Your task to perform on an android device: Open Google Chrome and click the shortcut for Amazon.com Image 0: 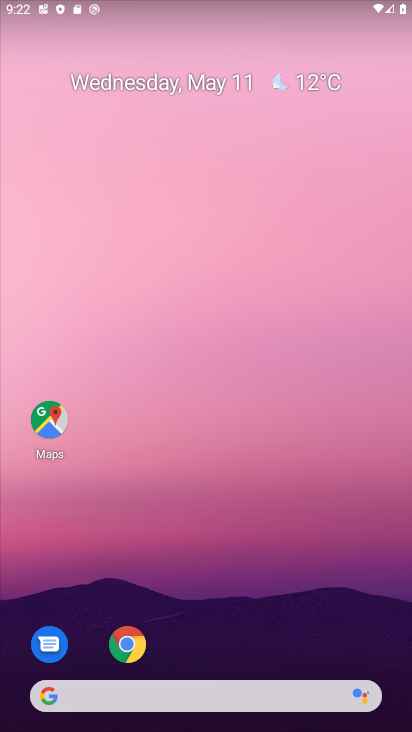
Step 0: click (136, 636)
Your task to perform on an android device: Open Google Chrome and click the shortcut for Amazon.com Image 1: 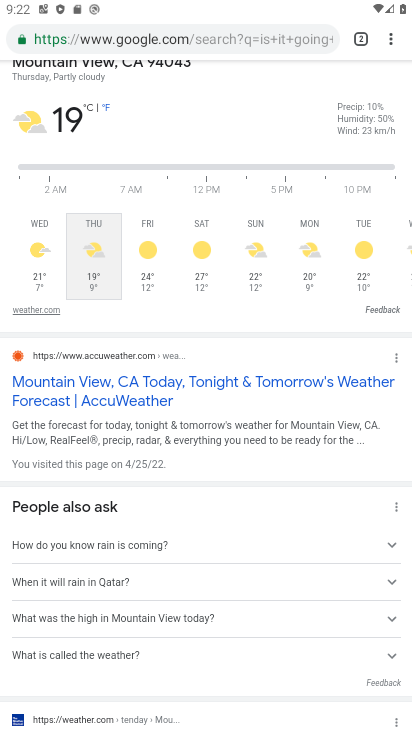
Step 1: click (363, 35)
Your task to perform on an android device: Open Google Chrome and click the shortcut for Amazon.com Image 2: 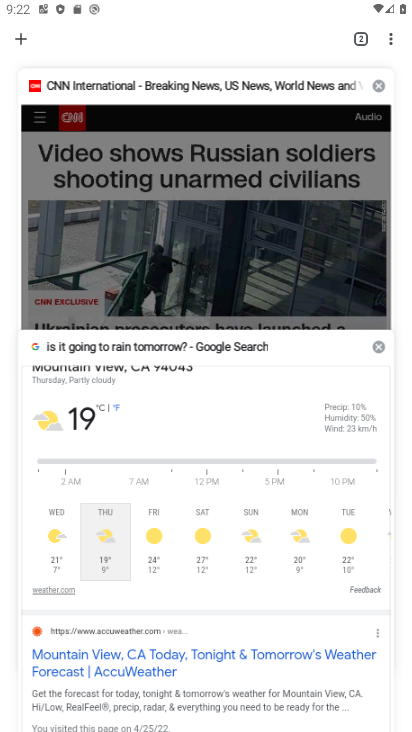
Step 2: click (22, 35)
Your task to perform on an android device: Open Google Chrome and click the shortcut for Amazon.com Image 3: 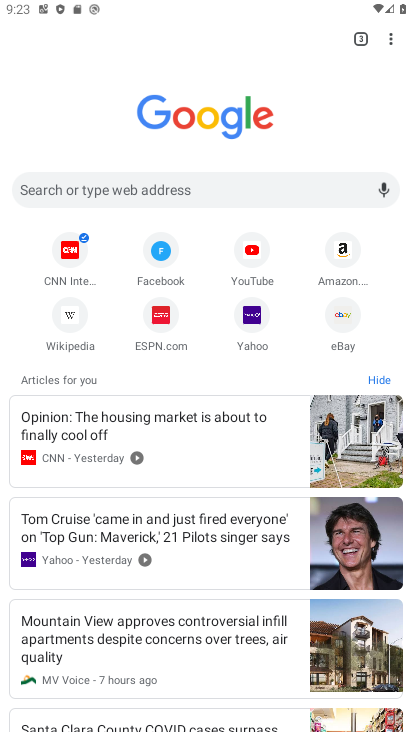
Step 3: click (347, 250)
Your task to perform on an android device: Open Google Chrome and click the shortcut for Amazon.com Image 4: 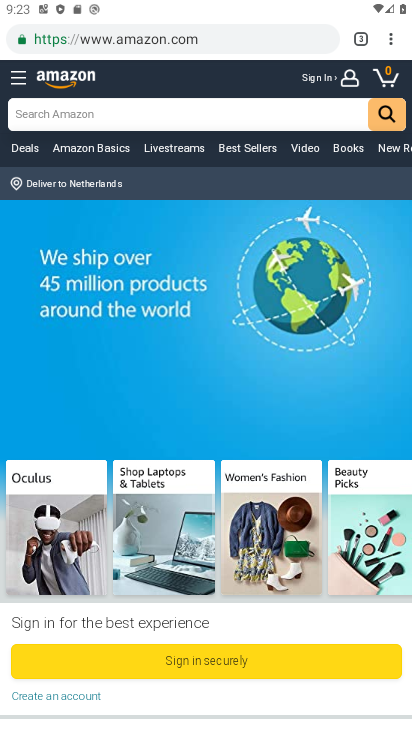
Step 4: task complete